Your task to perform on an android device: Search for pizza restaurants on Maps Image 0: 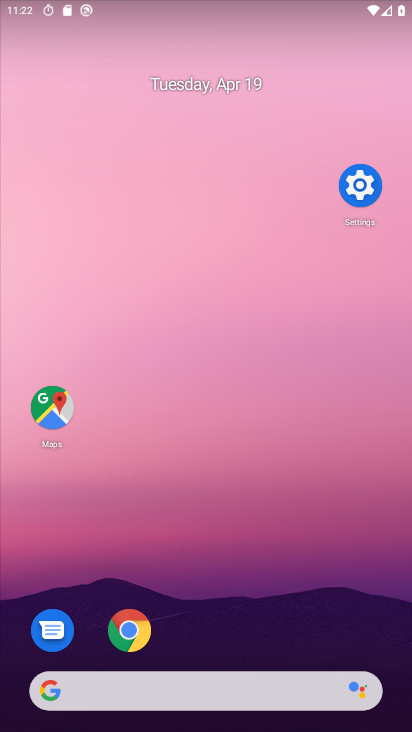
Step 0: drag from (251, 612) to (274, 445)
Your task to perform on an android device: Search for pizza restaurants on Maps Image 1: 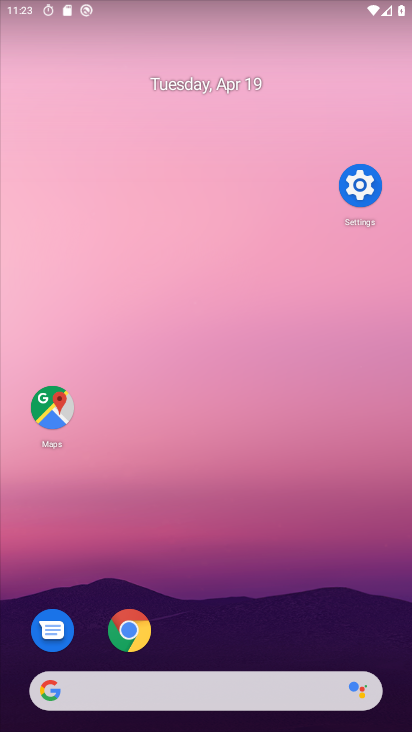
Step 1: drag from (253, 646) to (262, 248)
Your task to perform on an android device: Search for pizza restaurants on Maps Image 2: 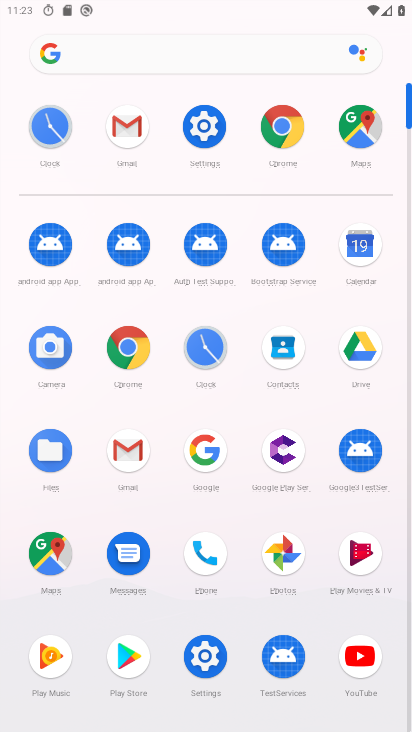
Step 2: click (59, 567)
Your task to perform on an android device: Search for pizza restaurants on Maps Image 3: 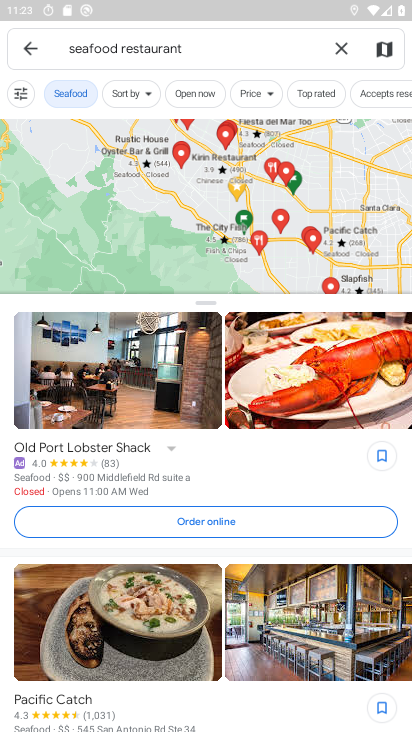
Step 3: click (338, 49)
Your task to perform on an android device: Search for pizza restaurants on Maps Image 4: 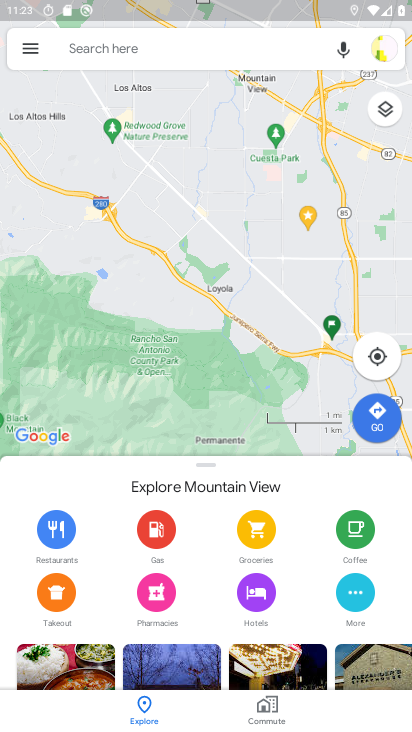
Step 4: click (270, 65)
Your task to perform on an android device: Search for pizza restaurants on Maps Image 5: 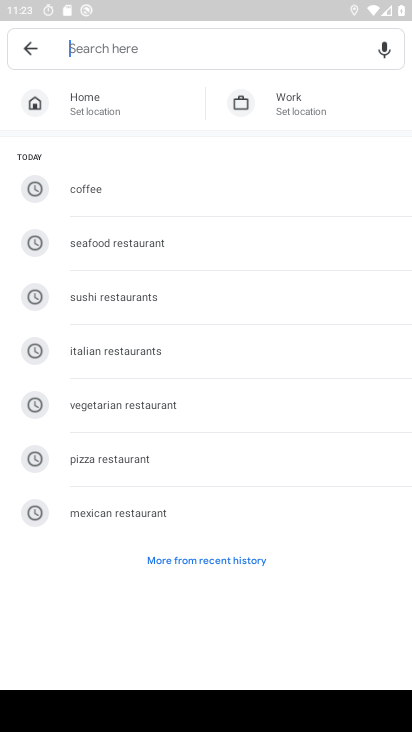
Step 5: click (220, 457)
Your task to perform on an android device: Search for pizza restaurants on Maps Image 6: 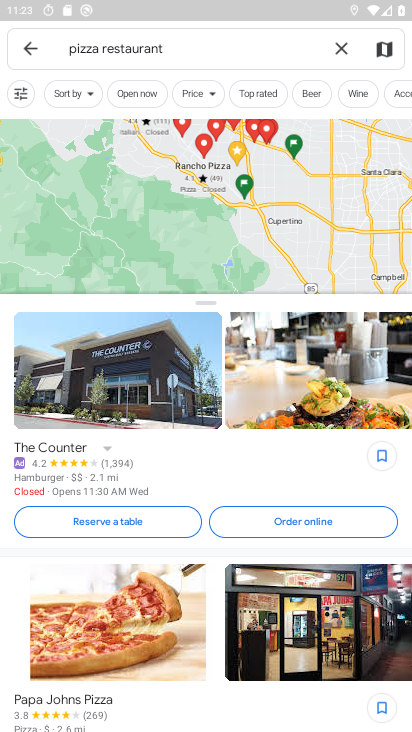
Step 6: task complete